Your task to perform on an android device: Open Maps and search for coffee Image 0: 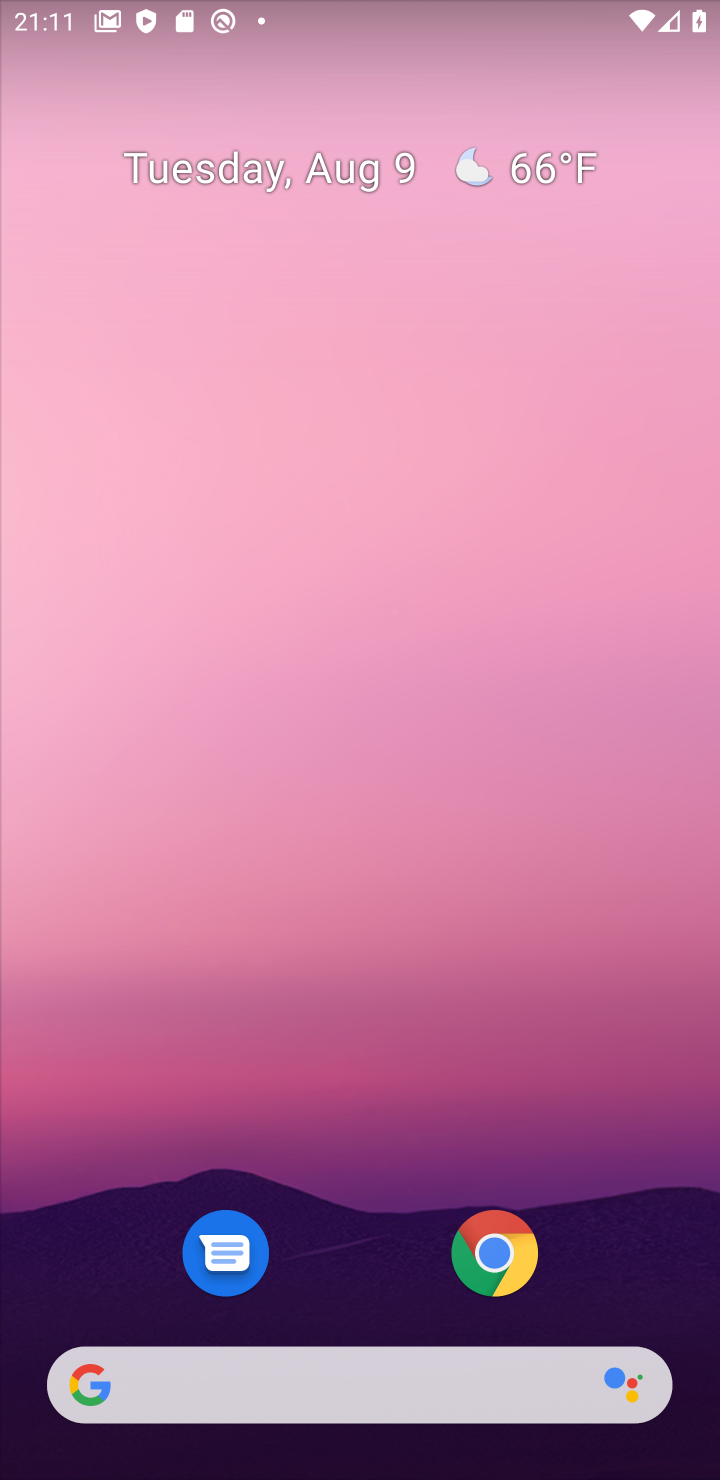
Step 0: drag from (333, 982) to (437, 586)
Your task to perform on an android device: Open Maps and search for coffee Image 1: 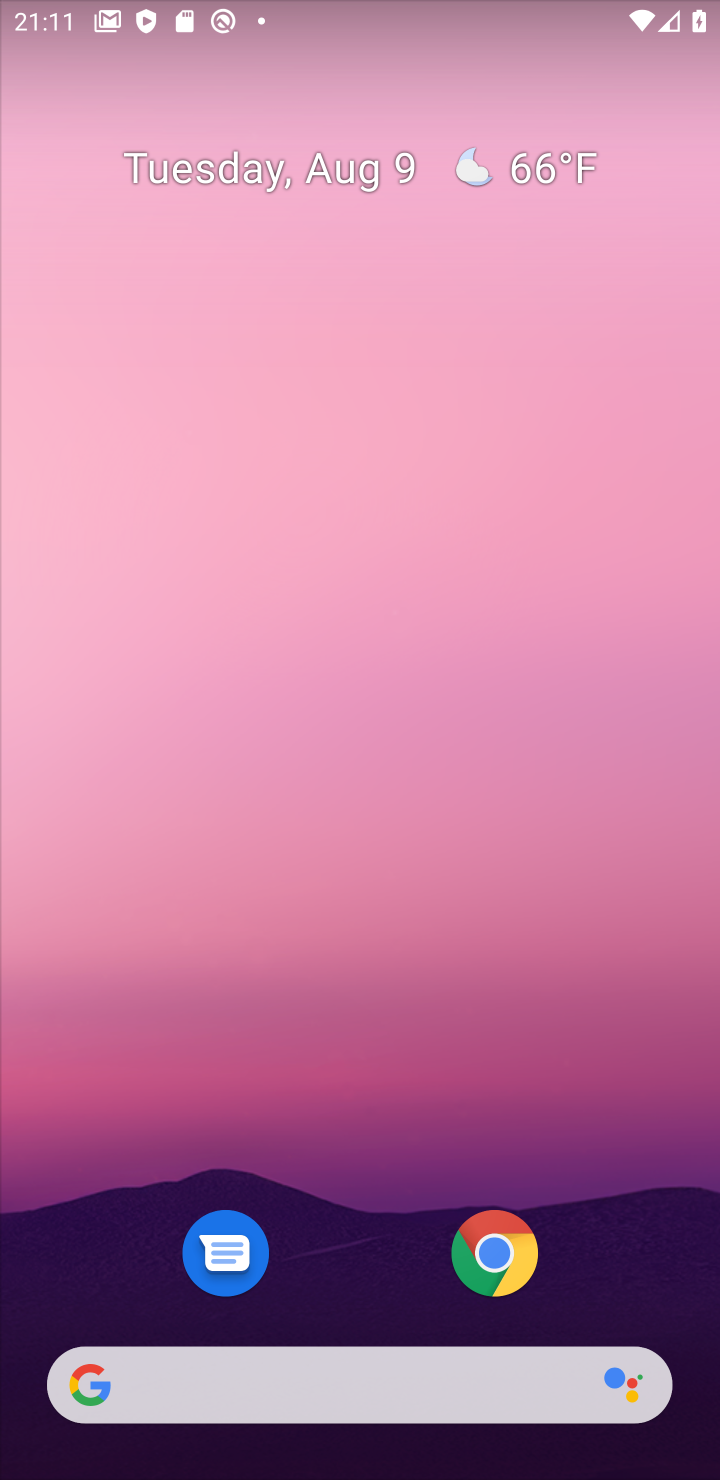
Step 1: drag from (346, 1218) to (413, 8)
Your task to perform on an android device: Open Maps and search for coffee Image 2: 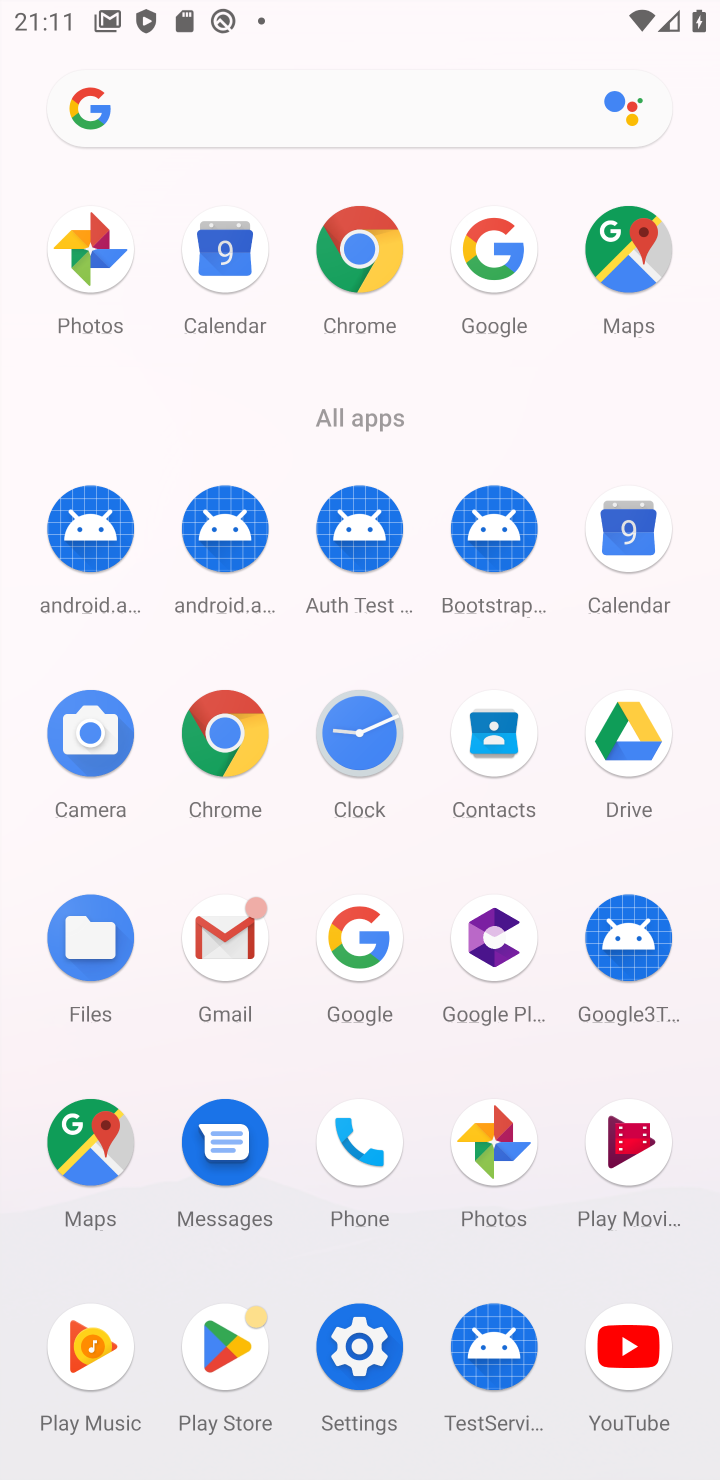
Step 2: click (90, 1154)
Your task to perform on an android device: Open Maps and search for coffee Image 3: 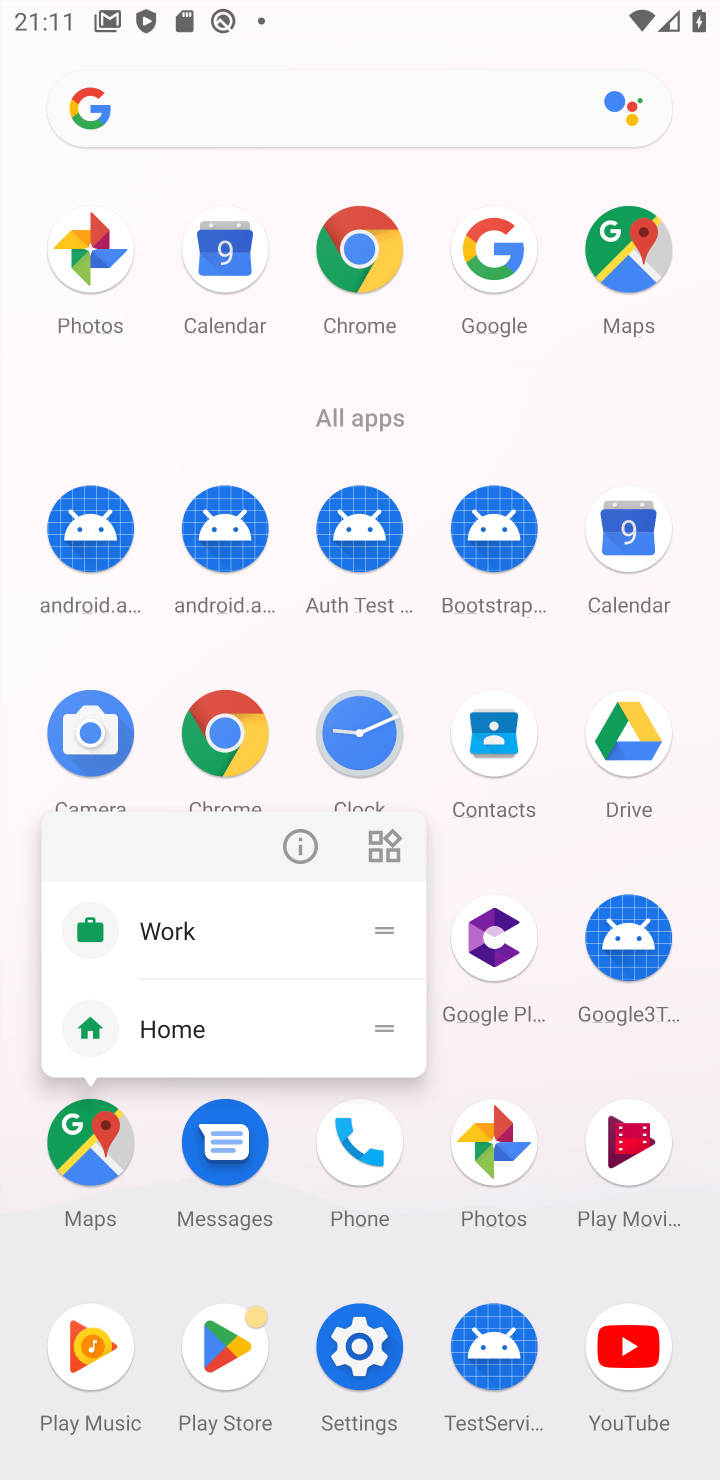
Step 3: click (90, 1154)
Your task to perform on an android device: Open Maps and search for coffee Image 4: 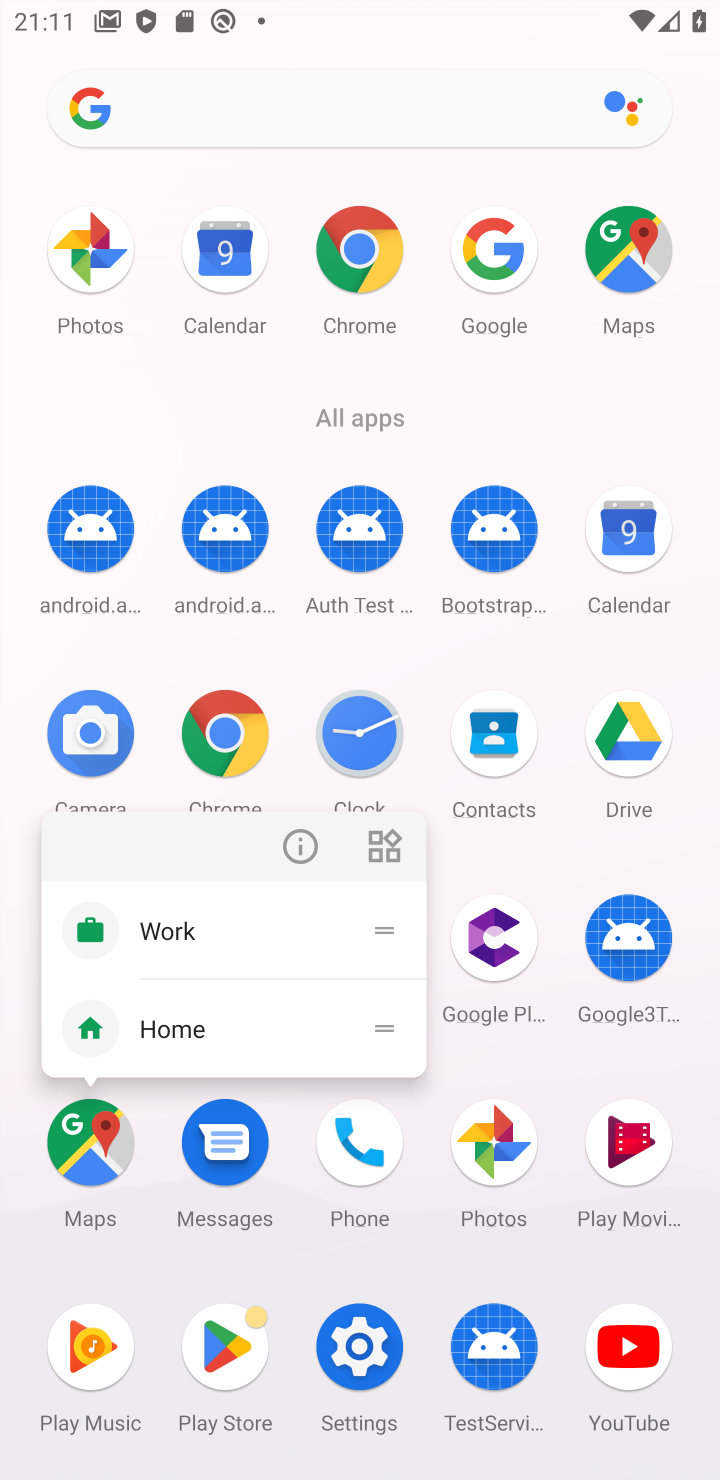
Step 4: click (90, 1142)
Your task to perform on an android device: Open Maps and search for coffee Image 5: 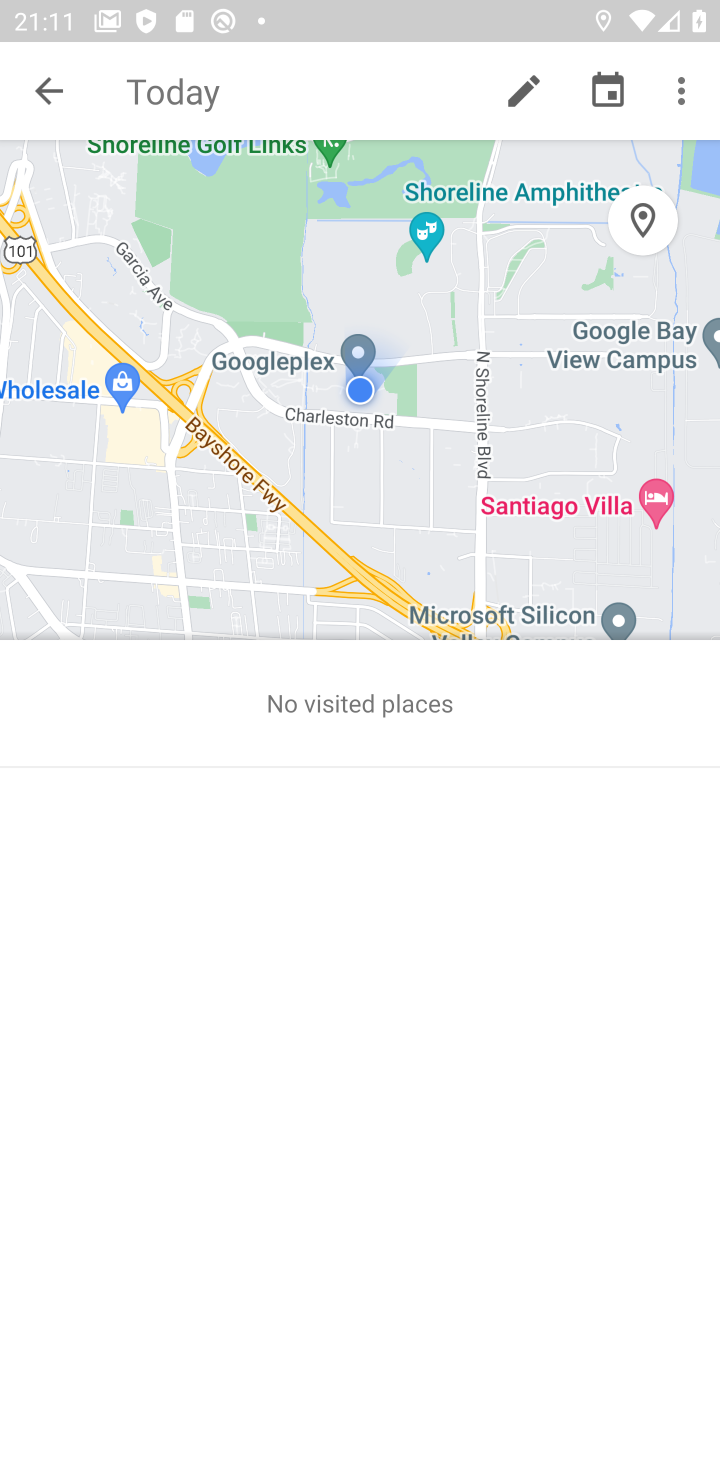
Step 5: press back button
Your task to perform on an android device: Open Maps and search for coffee Image 6: 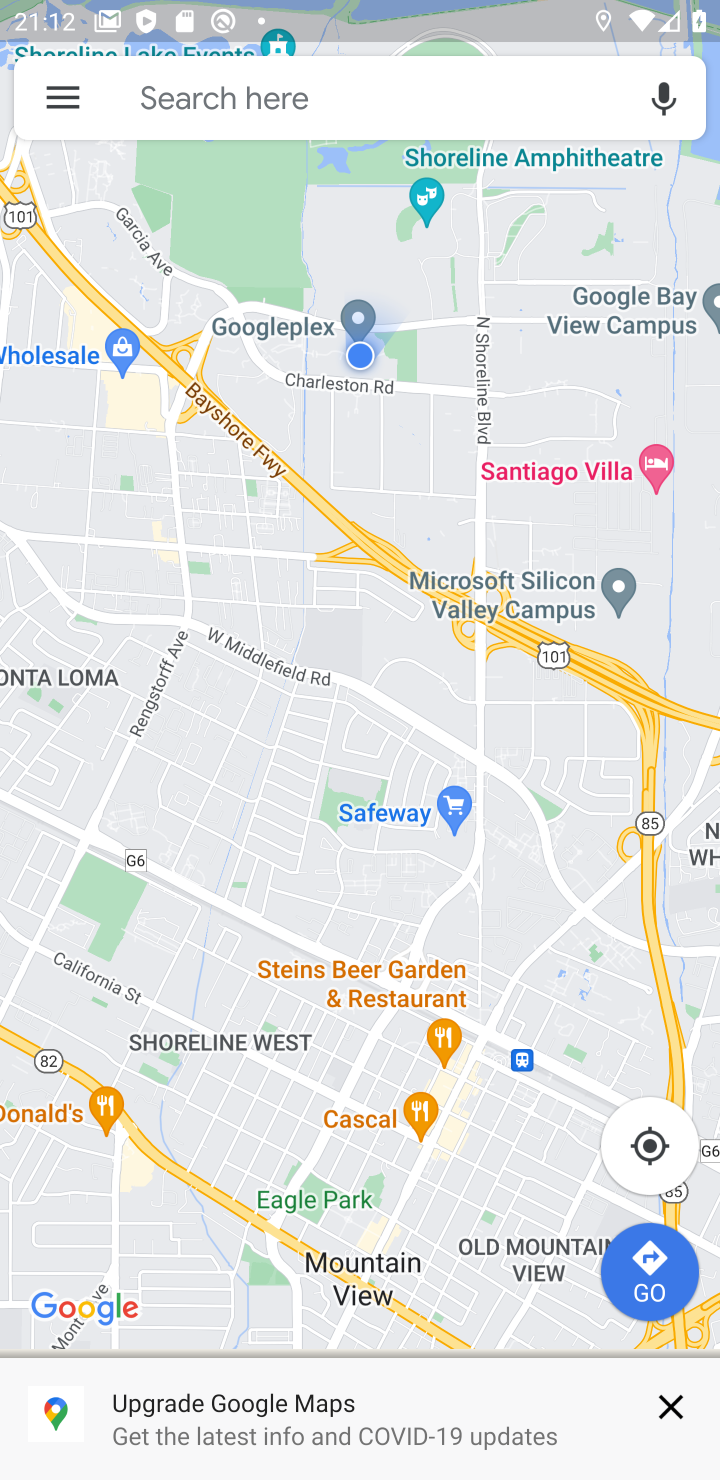
Step 6: click (232, 84)
Your task to perform on an android device: Open Maps and search for coffee Image 7: 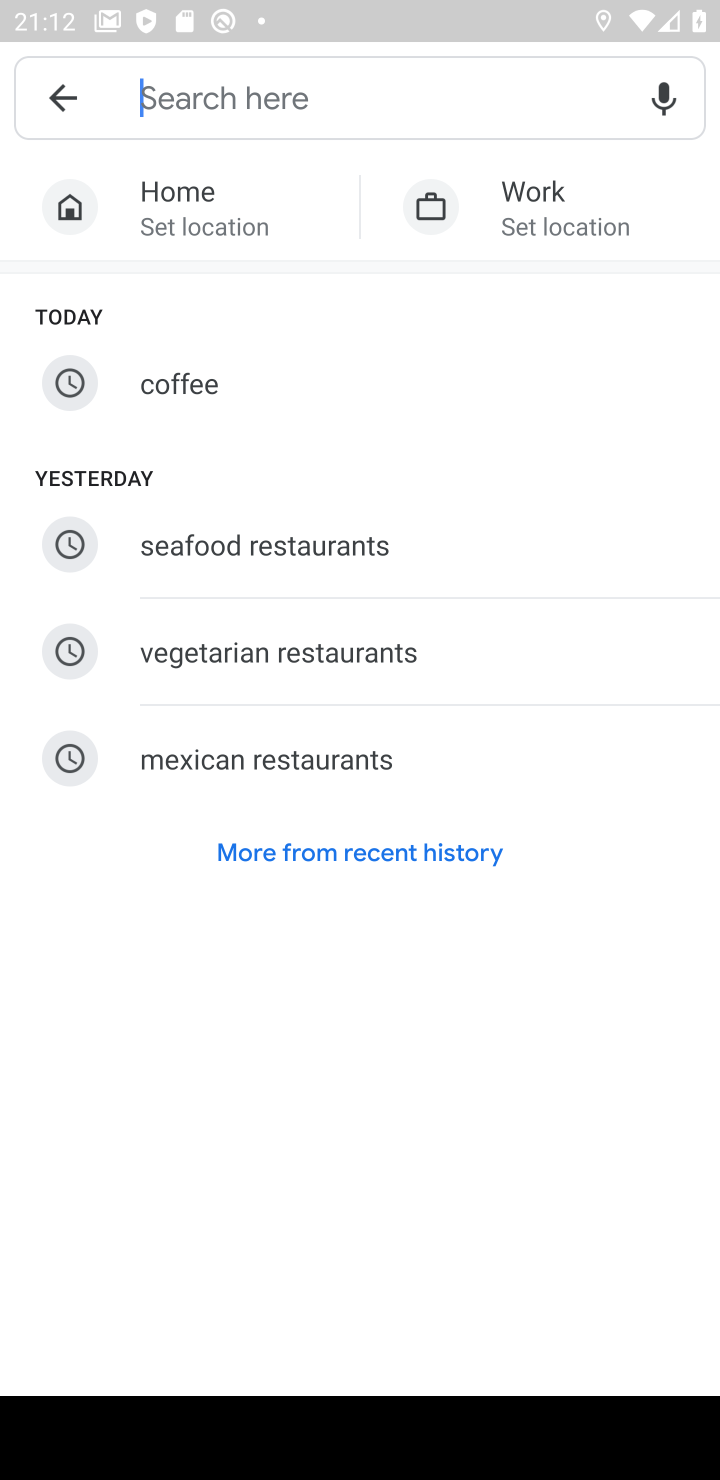
Step 7: click (251, 370)
Your task to perform on an android device: Open Maps and search for coffee Image 8: 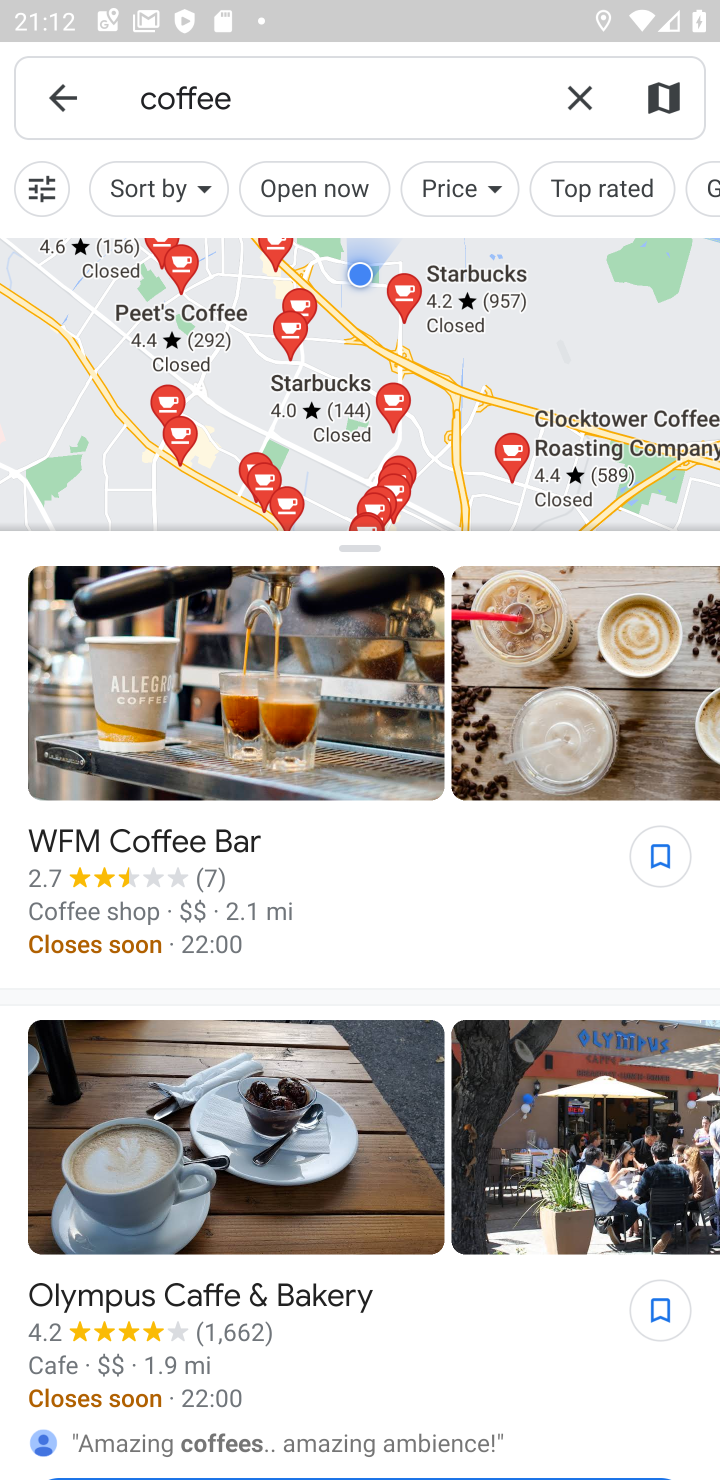
Step 8: task complete